Your task to perform on an android device: turn smart compose on in the gmail app Image 0: 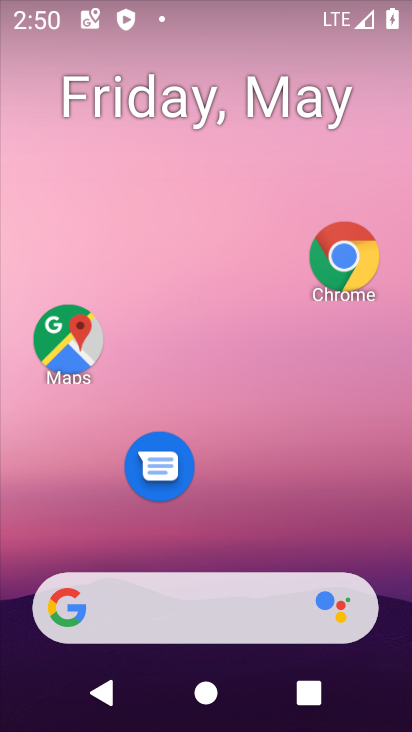
Step 0: drag from (211, 489) to (262, 34)
Your task to perform on an android device: turn smart compose on in the gmail app Image 1: 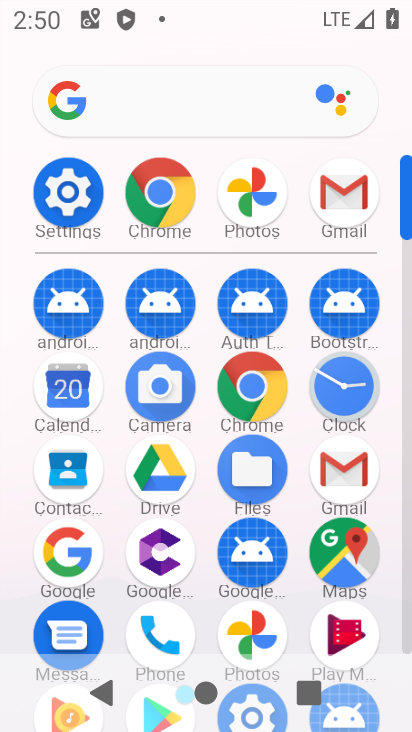
Step 1: click (332, 204)
Your task to perform on an android device: turn smart compose on in the gmail app Image 2: 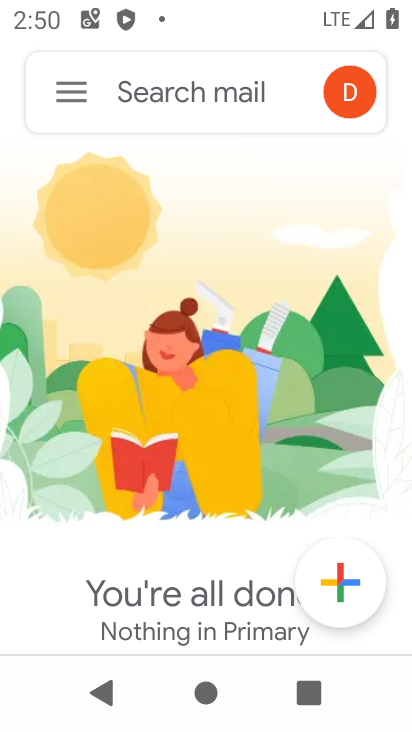
Step 2: click (83, 101)
Your task to perform on an android device: turn smart compose on in the gmail app Image 3: 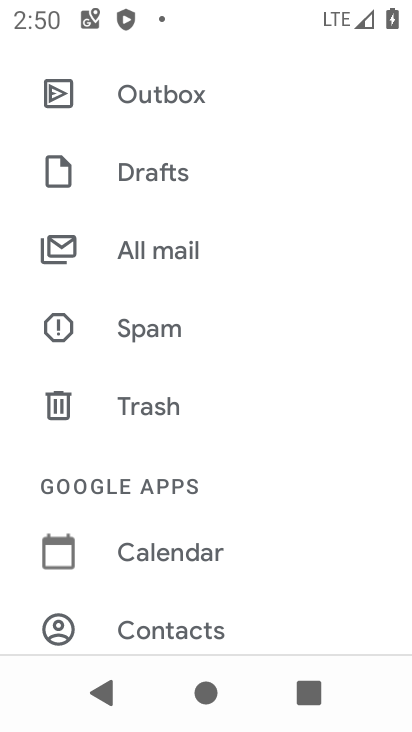
Step 3: drag from (221, 574) to (178, 247)
Your task to perform on an android device: turn smart compose on in the gmail app Image 4: 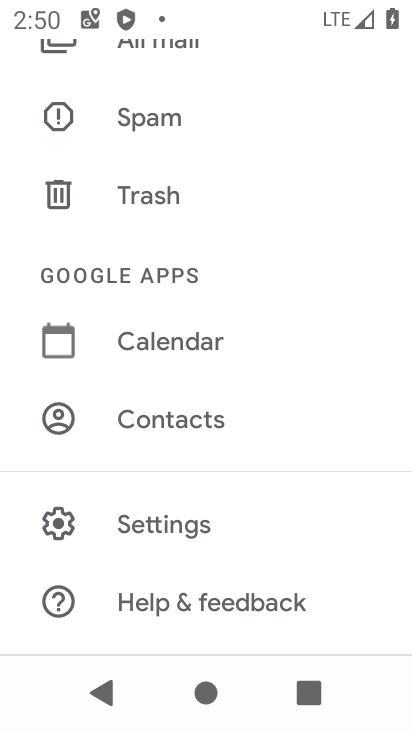
Step 4: click (165, 526)
Your task to perform on an android device: turn smart compose on in the gmail app Image 5: 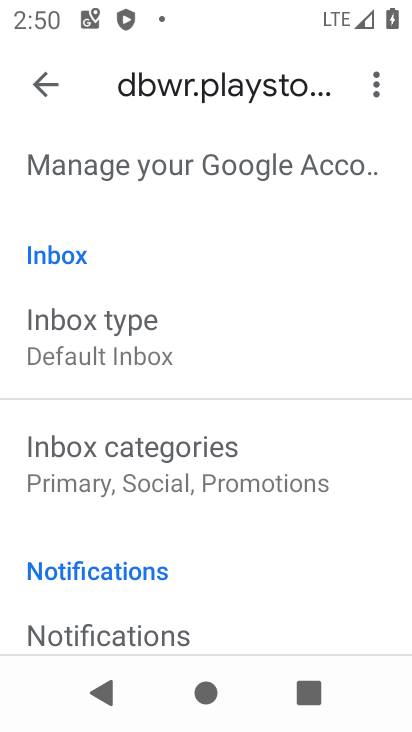
Step 5: task complete